Your task to perform on an android device: Search for sushi restaurants on Maps Image 0: 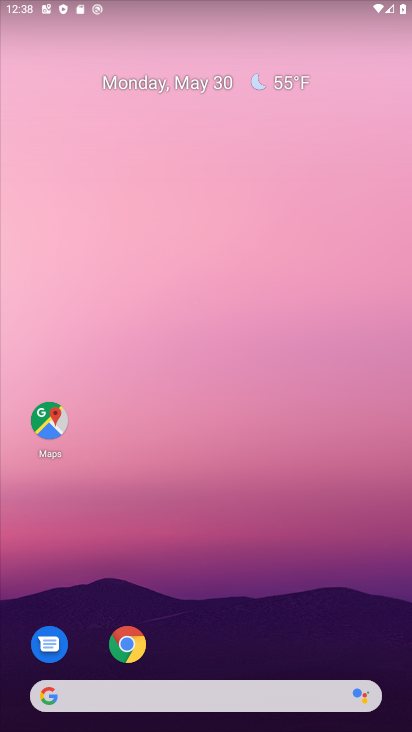
Step 0: click (50, 451)
Your task to perform on an android device: Search for sushi restaurants on Maps Image 1: 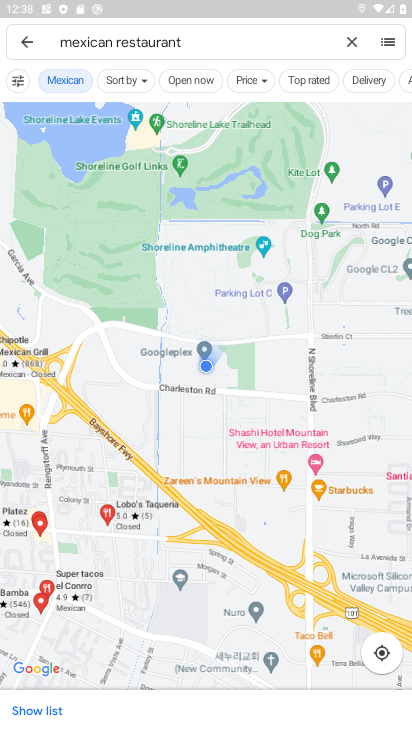
Step 1: click (355, 48)
Your task to perform on an android device: Search for sushi restaurants on Maps Image 2: 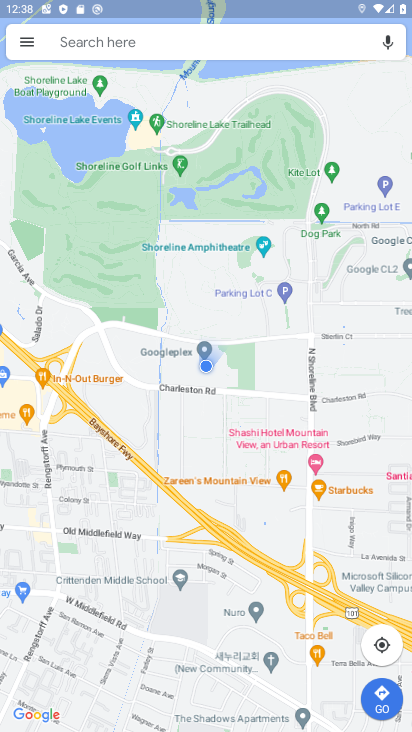
Step 2: click (265, 48)
Your task to perform on an android device: Search for sushi restaurants on Maps Image 3: 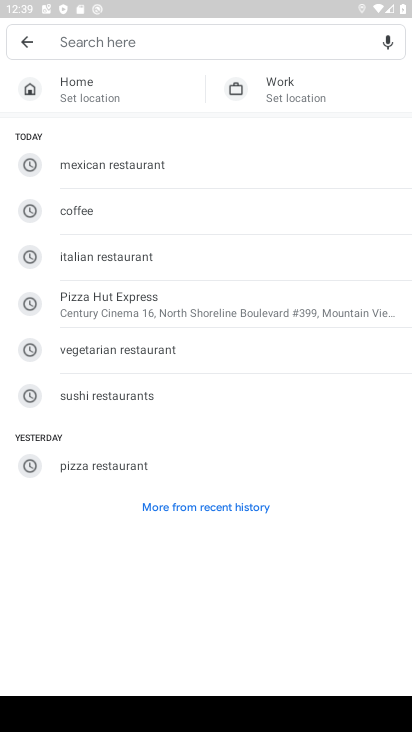
Step 3: click (203, 394)
Your task to perform on an android device: Search for sushi restaurants on Maps Image 4: 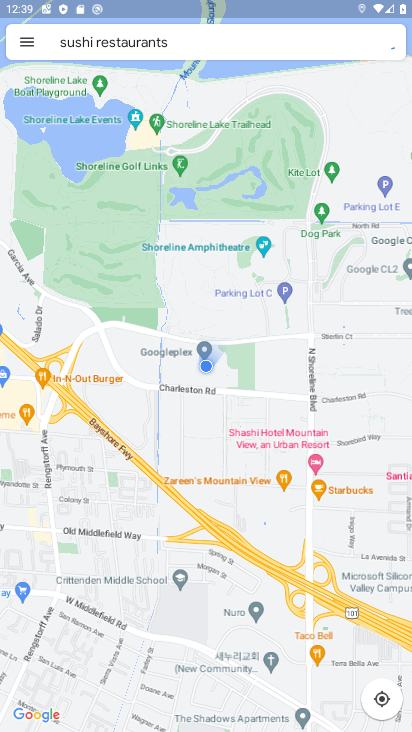
Step 4: task complete